Your task to perform on an android device: turn off translation in the chrome app Image 0: 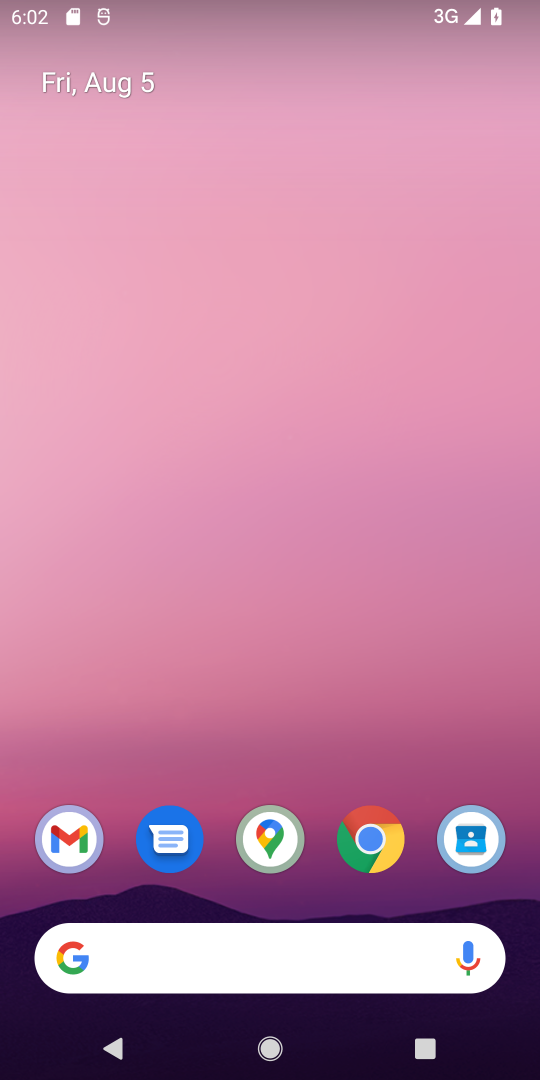
Step 0: click (359, 845)
Your task to perform on an android device: turn off translation in the chrome app Image 1: 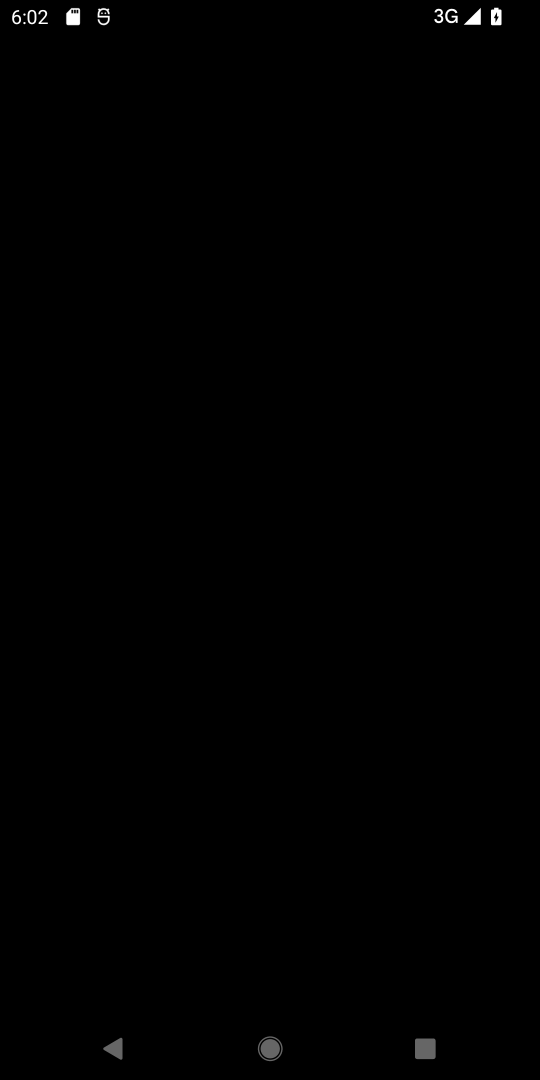
Step 1: task complete